Your task to perform on an android device: choose inbox layout in the gmail app Image 0: 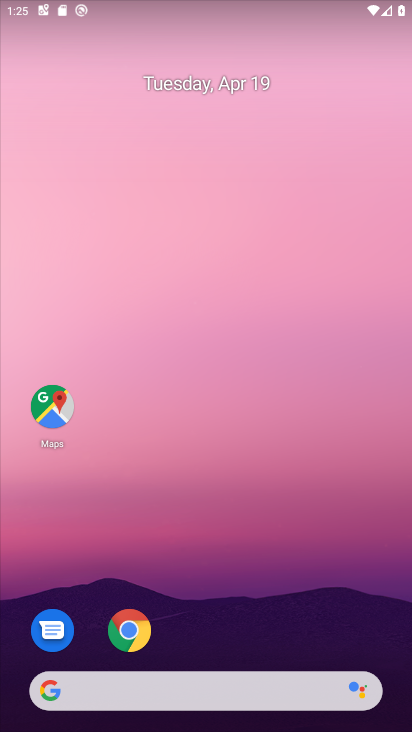
Step 0: drag from (233, 641) to (230, 39)
Your task to perform on an android device: choose inbox layout in the gmail app Image 1: 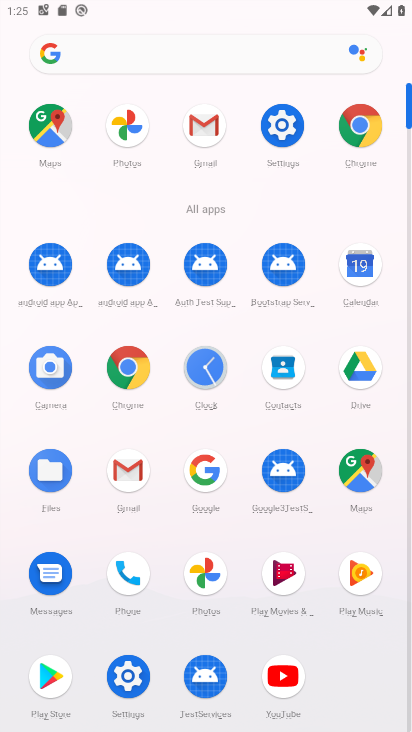
Step 1: click (118, 468)
Your task to perform on an android device: choose inbox layout in the gmail app Image 2: 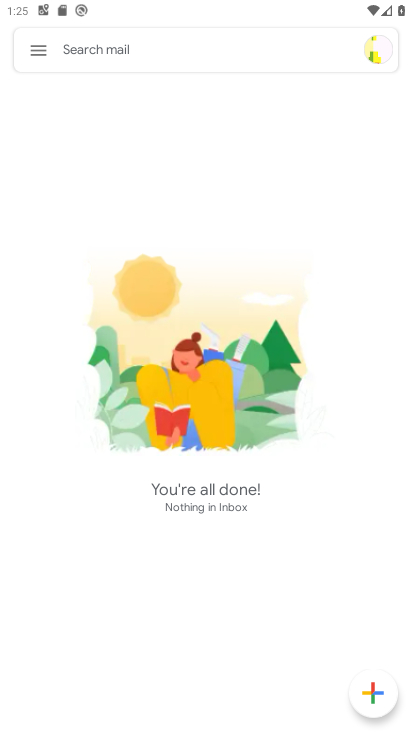
Step 2: click (31, 49)
Your task to perform on an android device: choose inbox layout in the gmail app Image 3: 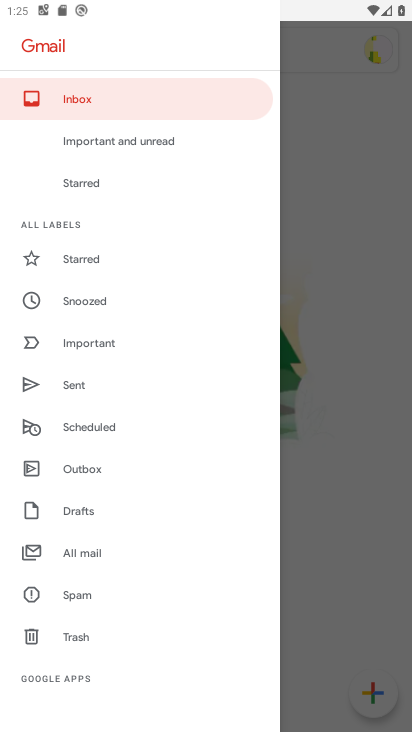
Step 3: drag from (85, 692) to (90, 472)
Your task to perform on an android device: choose inbox layout in the gmail app Image 4: 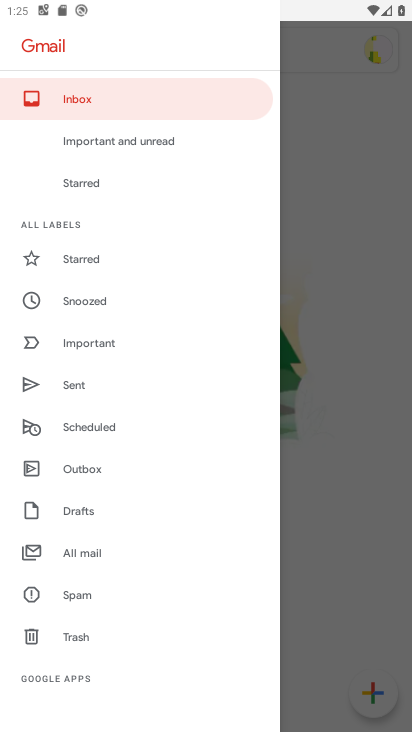
Step 4: drag from (98, 650) to (132, 454)
Your task to perform on an android device: choose inbox layout in the gmail app Image 5: 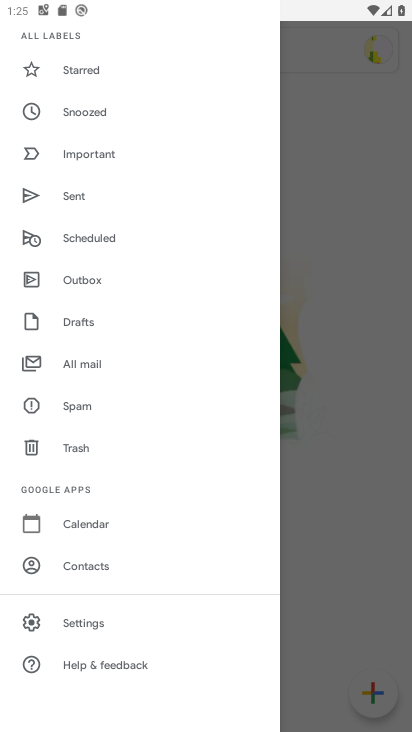
Step 5: click (97, 635)
Your task to perform on an android device: choose inbox layout in the gmail app Image 6: 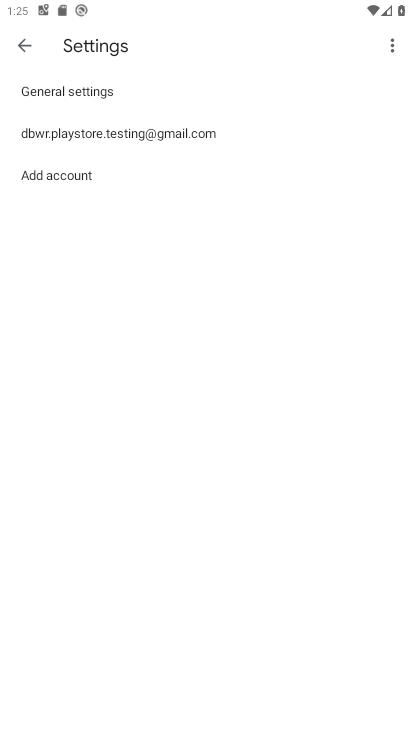
Step 6: click (168, 131)
Your task to perform on an android device: choose inbox layout in the gmail app Image 7: 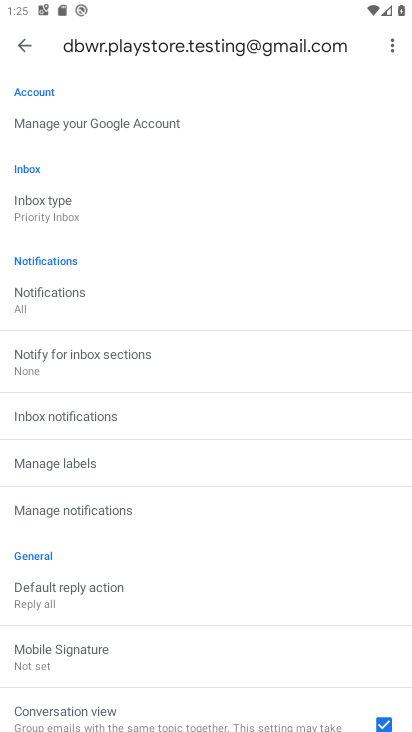
Step 7: click (40, 206)
Your task to perform on an android device: choose inbox layout in the gmail app Image 8: 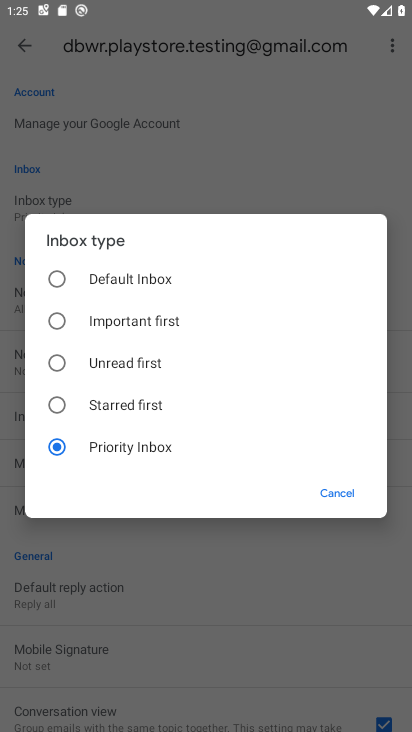
Step 8: click (52, 282)
Your task to perform on an android device: choose inbox layout in the gmail app Image 9: 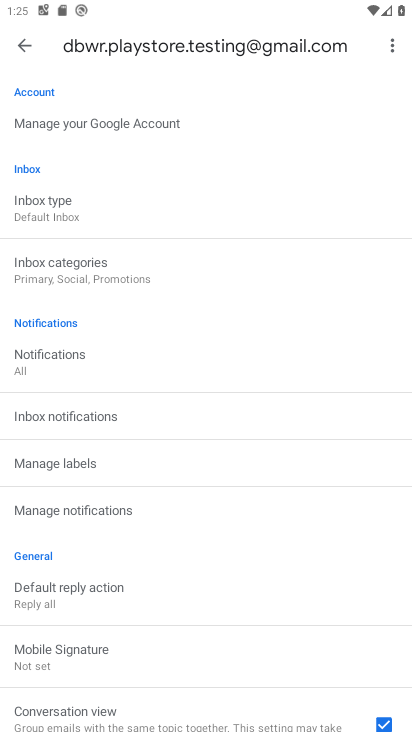
Step 9: task complete